Your task to perform on an android device: see creations saved in the google photos Image 0: 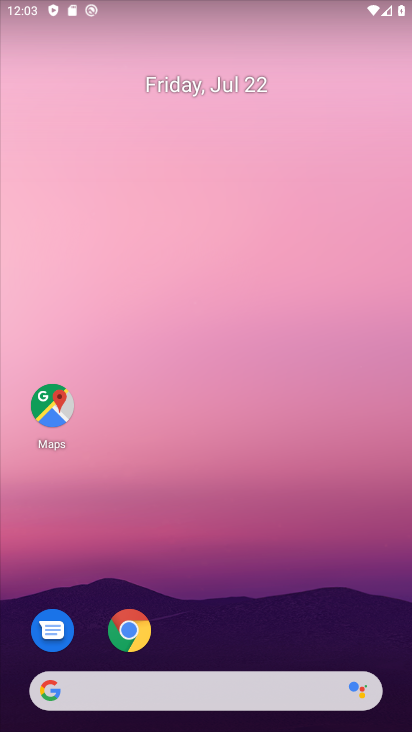
Step 0: press home button
Your task to perform on an android device: see creations saved in the google photos Image 1: 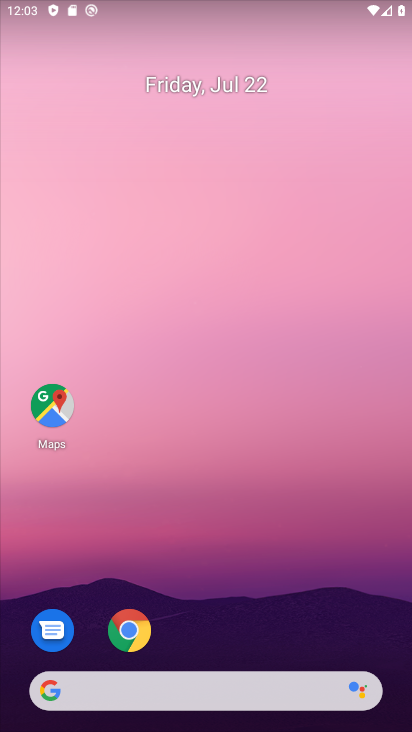
Step 1: drag from (290, 647) to (275, 388)
Your task to perform on an android device: see creations saved in the google photos Image 2: 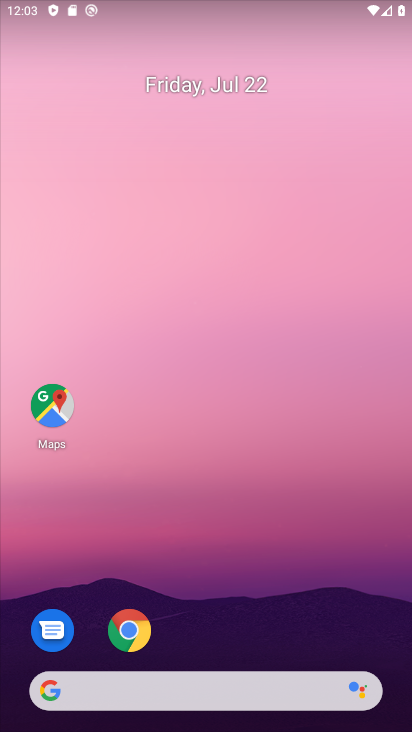
Step 2: drag from (229, 196) to (229, 161)
Your task to perform on an android device: see creations saved in the google photos Image 3: 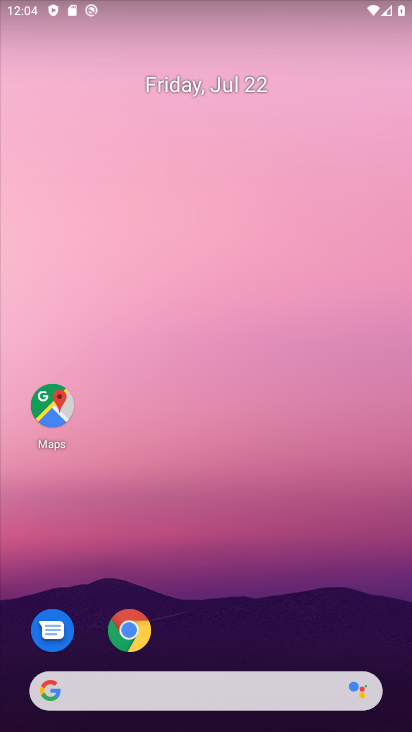
Step 3: drag from (319, 638) to (214, 52)
Your task to perform on an android device: see creations saved in the google photos Image 4: 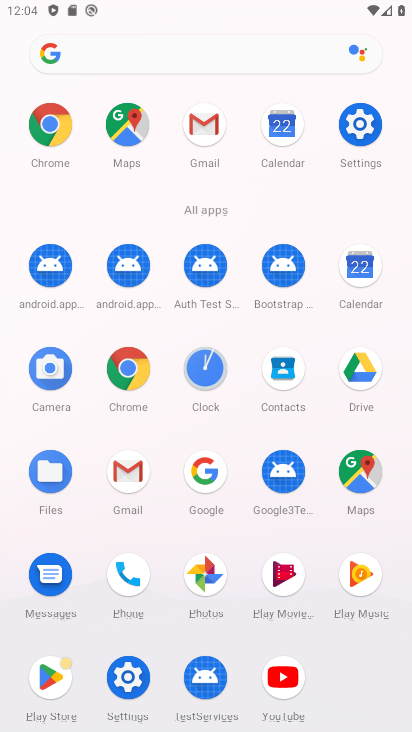
Step 4: click (208, 591)
Your task to perform on an android device: see creations saved in the google photos Image 5: 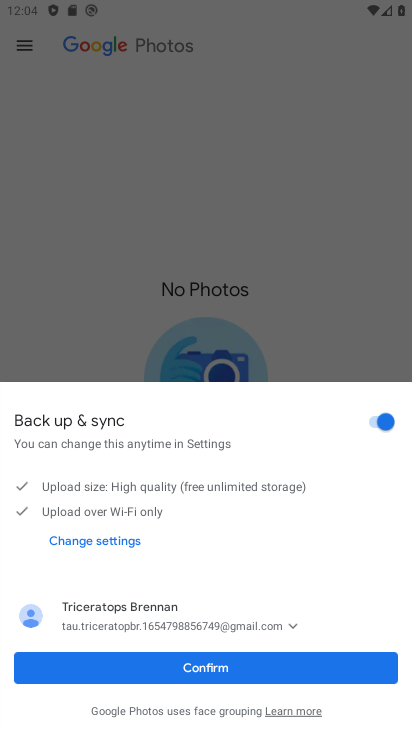
Step 5: click (232, 660)
Your task to perform on an android device: see creations saved in the google photos Image 6: 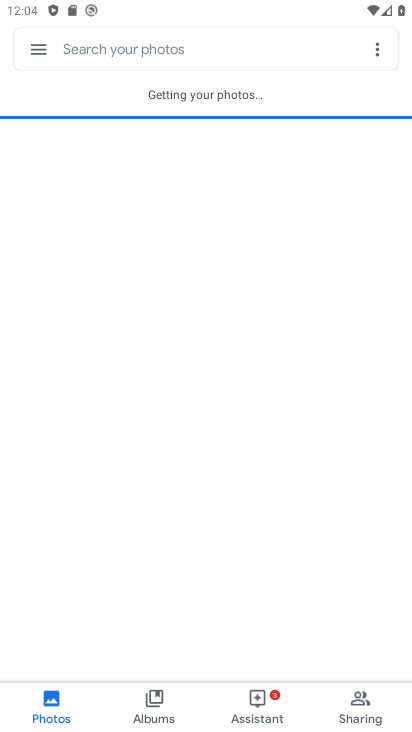
Step 6: click (184, 39)
Your task to perform on an android device: see creations saved in the google photos Image 7: 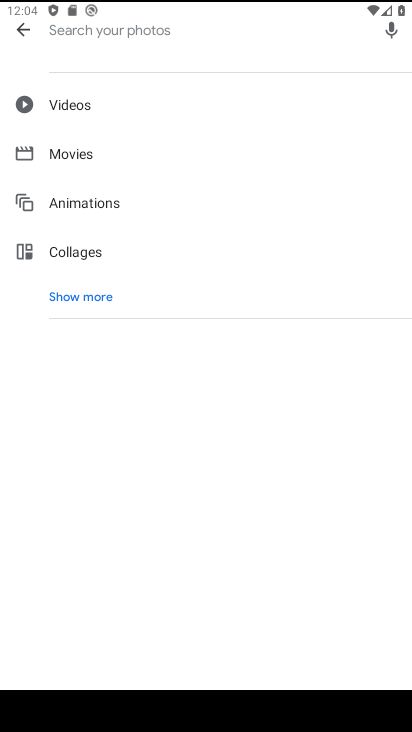
Step 7: click (90, 288)
Your task to perform on an android device: see creations saved in the google photos Image 8: 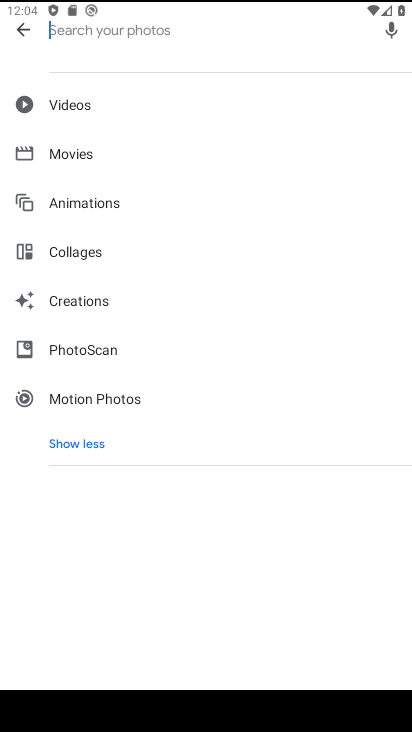
Step 8: click (90, 288)
Your task to perform on an android device: see creations saved in the google photos Image 9: 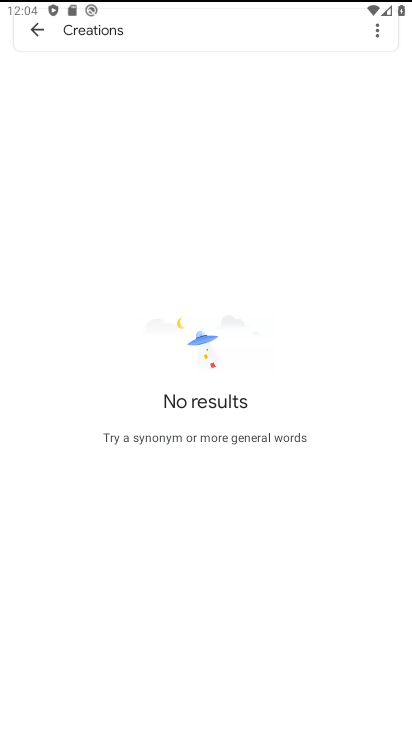
Step 9: task complete